Your task to perform on an android device: Check the news Image 0: 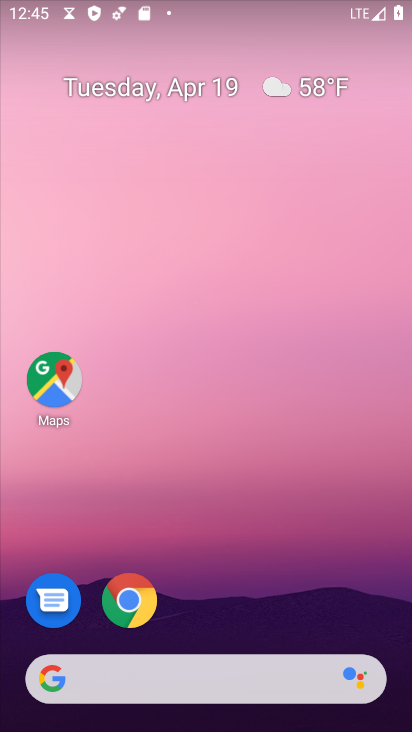
Step 0: drag from (128, 662) to (83, 245)
Your task to perform on an android device: Check the news Image 1: 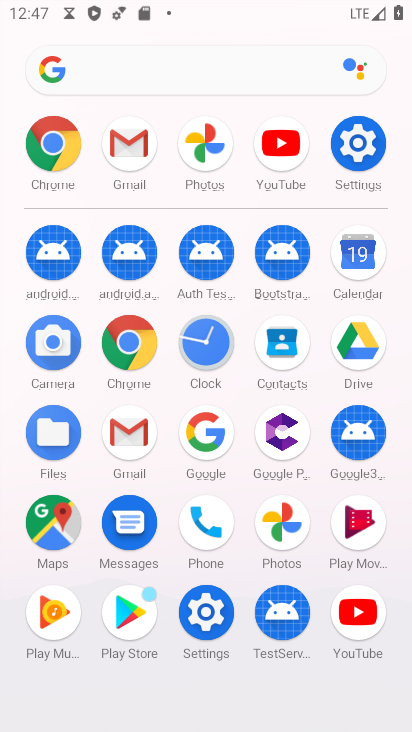
Step 1: click (211, 441)
Your task to perform on an android device: Check the news Image 2: 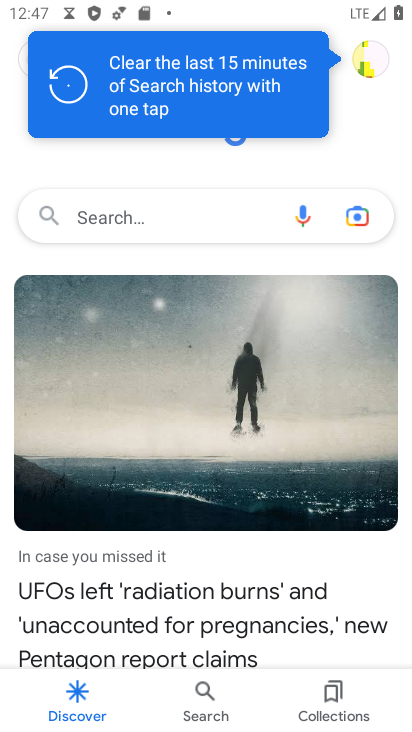
Step 2: task complete